Your task to perform on an android device: What is the recent news? Image 0: 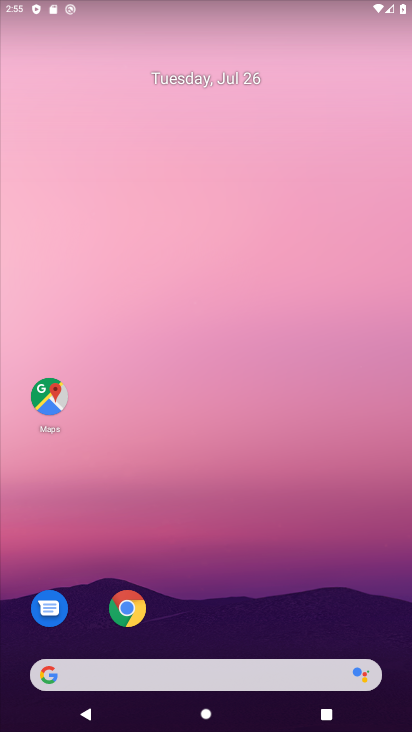
Step 0: click (187, 677)
Your task to perform on an android device: What is the recent news? Image 1: 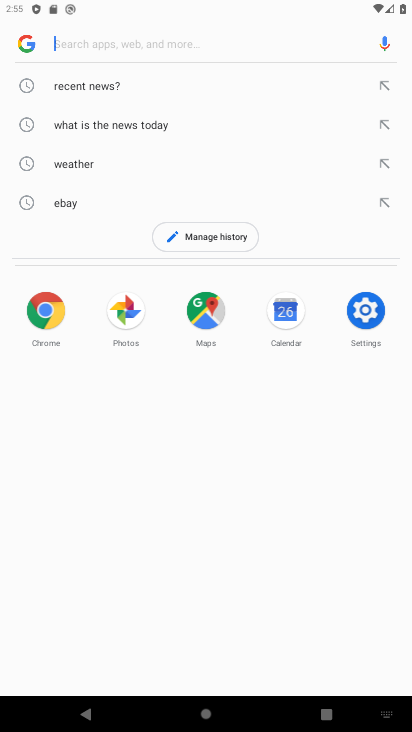
Step 1: click (86, 95)
Your task to perform on an android device: What is the recent news? Image 2: 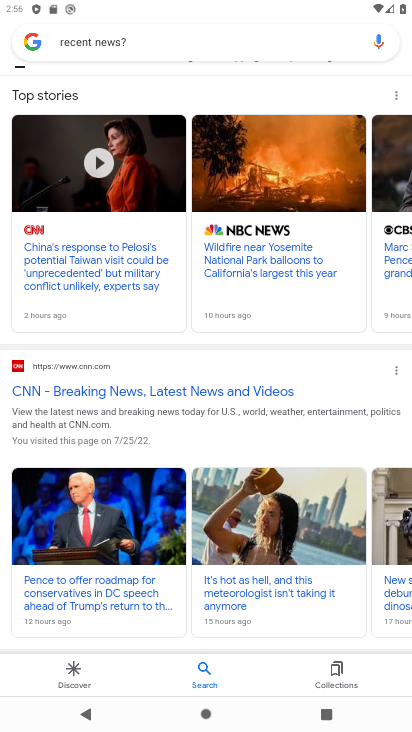
Step 2: task complete